Your task to perform on an android device: delete the emails in spam in the gmail app Image 0: 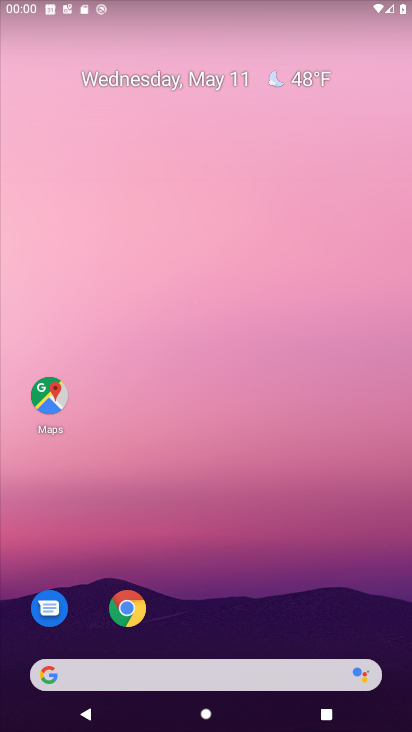
Step 0: drag from (191, 581) to (151, 235)
Your task to perform on an android device: delete the emails in spam in the gmail app Image 1: 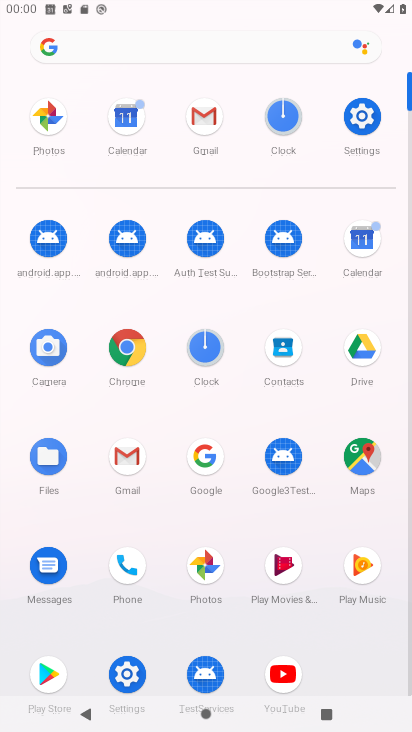
Step 1: click (208, 127)
Your task to perform on an android device: delete the emails in spam in the gmail app Image 2: 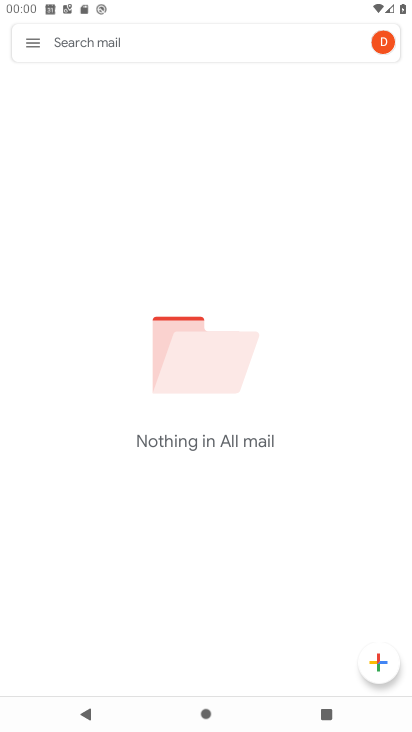
Step 2: click (30, 38)
Your task to perform on an android device: delete the emails in spam in the gmail app Image 3: 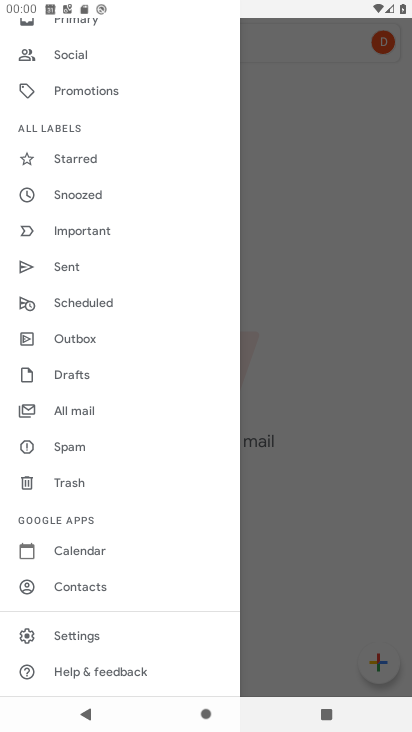
Step 3: click (77, 448)
Your task to perform on an android device: delete the emails in spam in the gmail app Image 4: 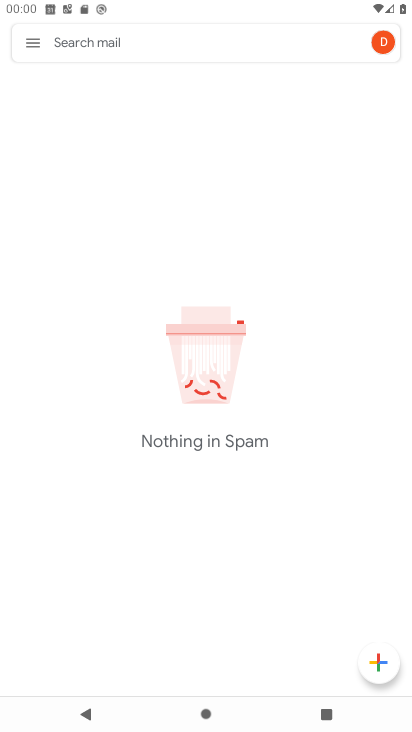
Step 4: task complete